Your task to perform on an android device: Go to Yahoo.com Image 0: 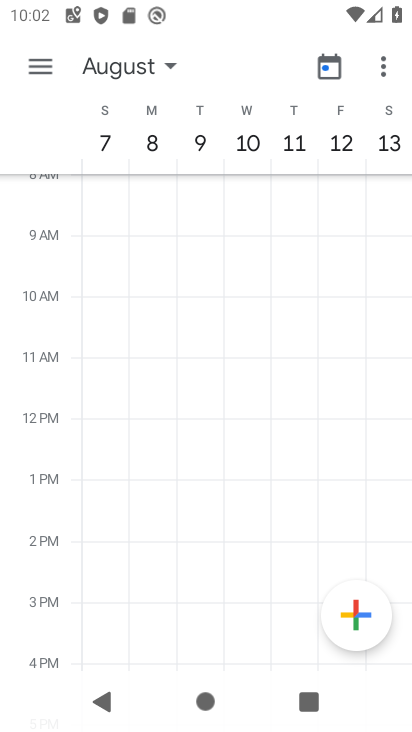
Step 0: press home button
Your task to perform on an android device: Go to Yahoo.com Image 1: 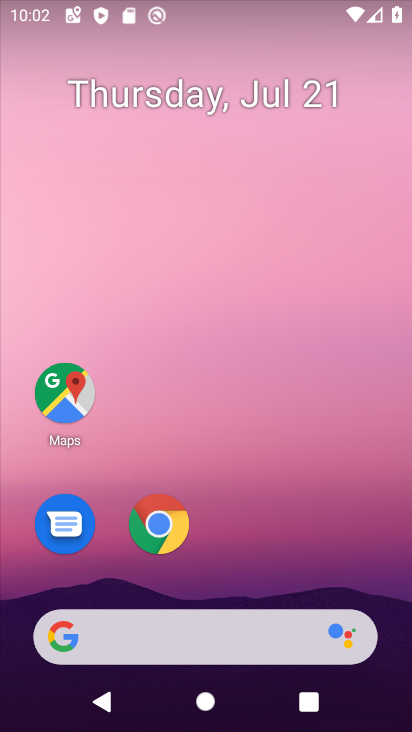
Step 1: click (162, 523)
Your task to perform on an android device: Go to Yahoo.com Image 2: 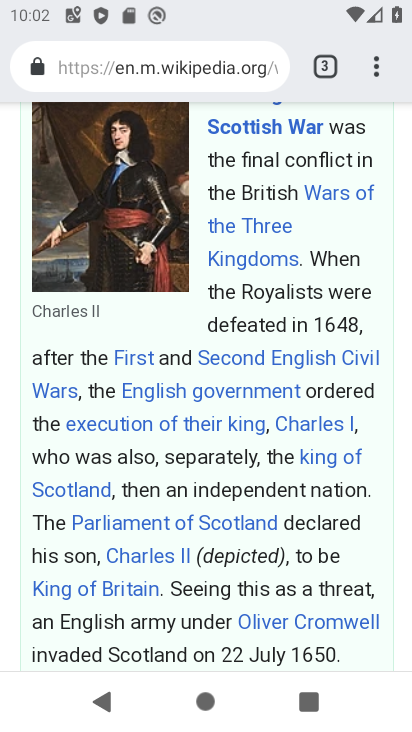
Step 2: drag from (366, 76) to (288, 135)
Your task to perform on an android device: Go to Yahoo.com Image 3: 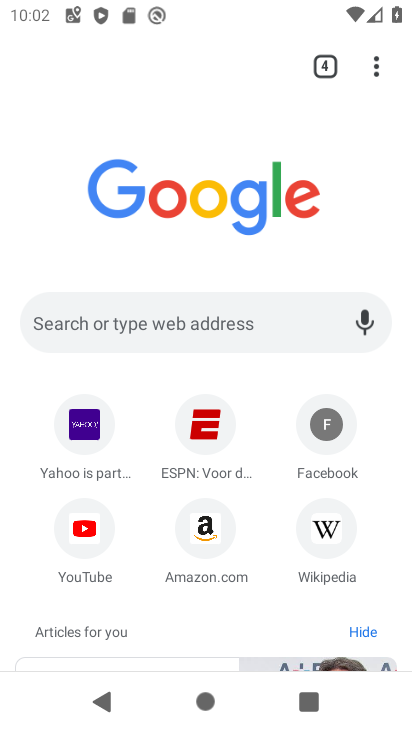
Step 3: click (85, 428)
Your task to perform on an android device: Go to Yahoo.com Image 4: 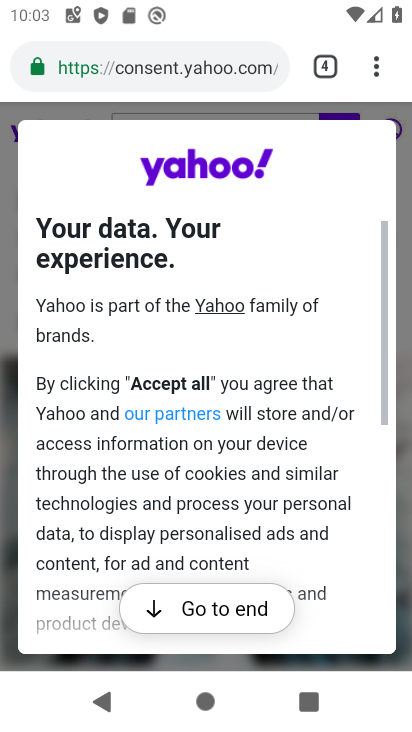
Step 4: click (200, 602)
Your task to perform on an android device: Go to Yahoo.com Image 5: 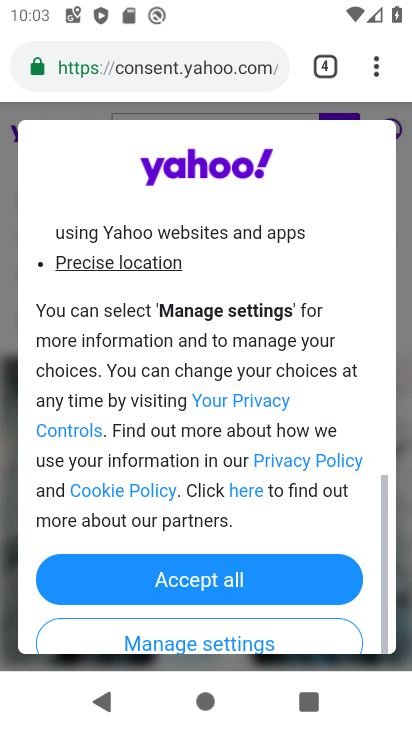
Step 5: click (218, 580)
Your task to perform on an android device: Go to Yahoo.com Image 6: 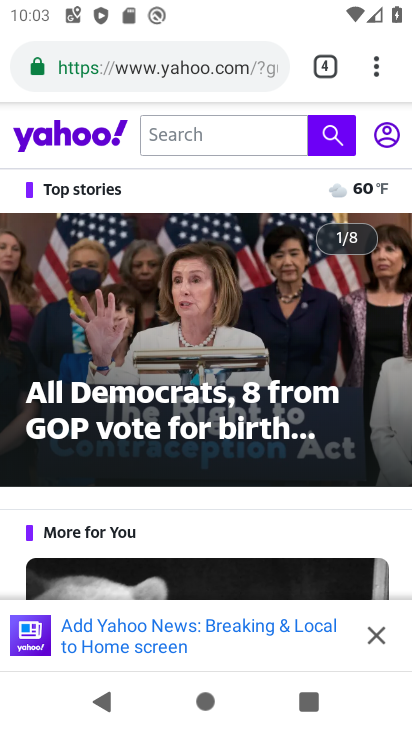
Step 6: task complete